Your task to perform on an android device: manage bookmarks in the chrome app Image 0: 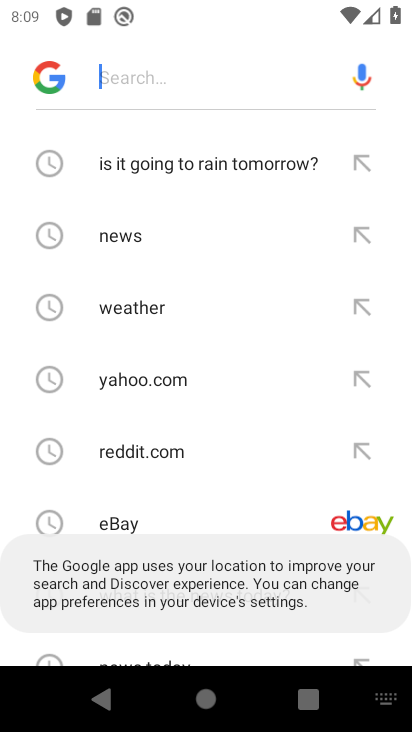
Step 0: press home button
Your task to perform on an android device: manage bookmarks in the chrome app Image 1: 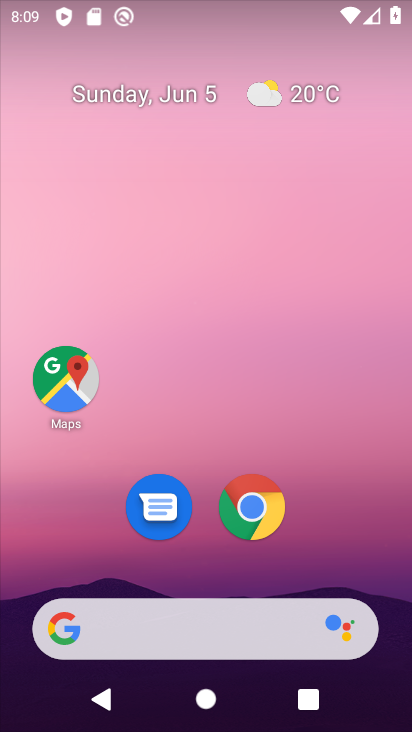
Step 1: click (254, 517)
Your task to perform on an android device: manage bookmarks in the chrome app Image 2: 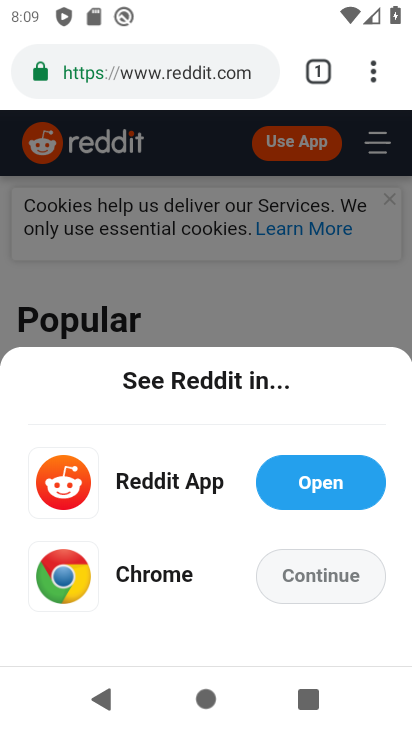
Step 2: click (375, 78)
Your task to perform on an android device: manage bookmarks in the chrome app Image 3: 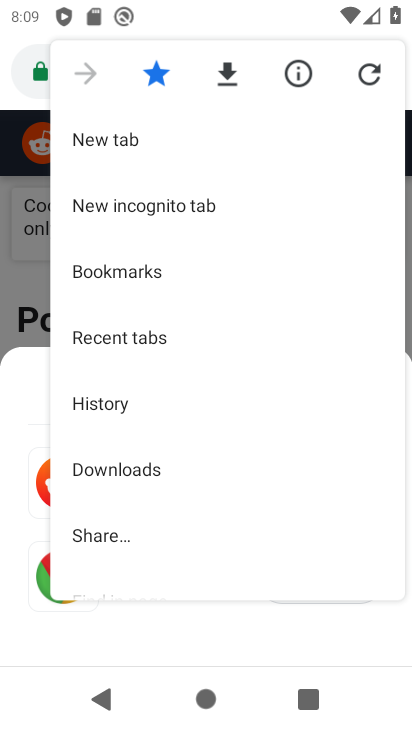
Step 3: click (147, 268)
Your task to perform on an android device: manage bookmarks in the chrome app Image 4: 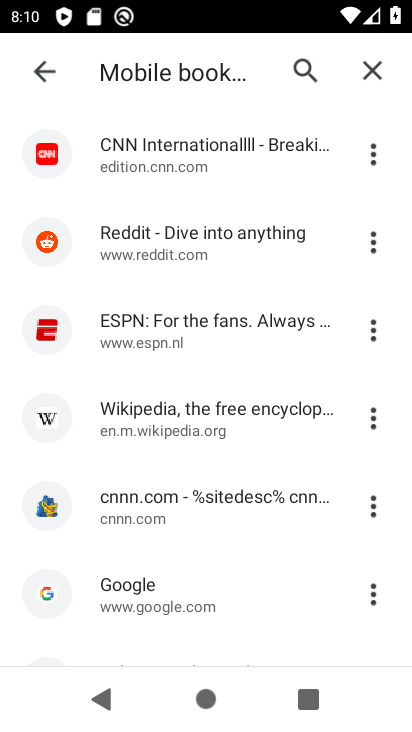
Step 4: click (374, 246)
Your task to perform on an android device: manage bookmarks in the chrome app Image 5: 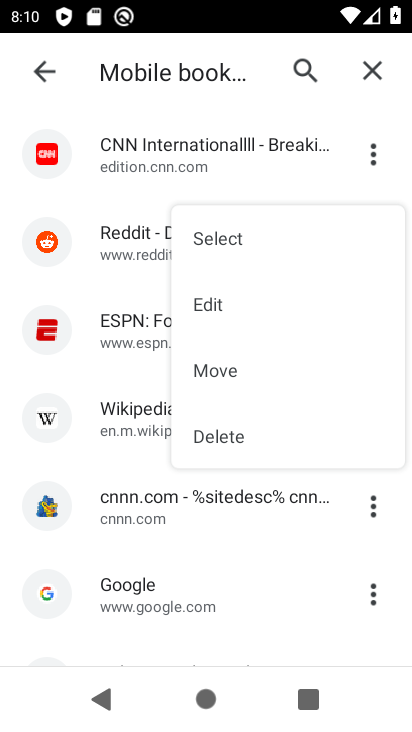
Step 5: click (214, 298)
Your task to perform on an android device: manage bookmarks in the chrome app Image 6: 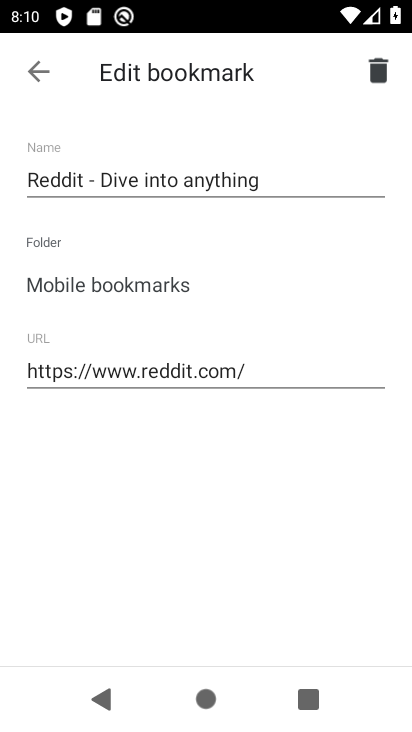
Step 6: click (199, 176)
Your task to perform on an android device: manage bookmarks in the chrome app Image 7: 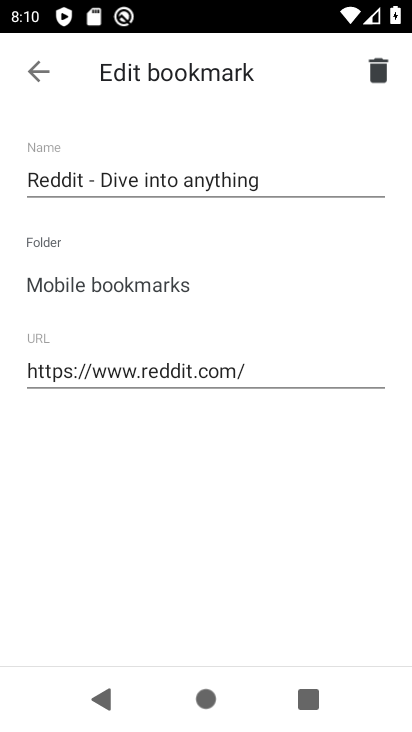
Step 7: click (199, 176)
Your task to perform on an android device: manage bookmarks in the chrome app Image 8: 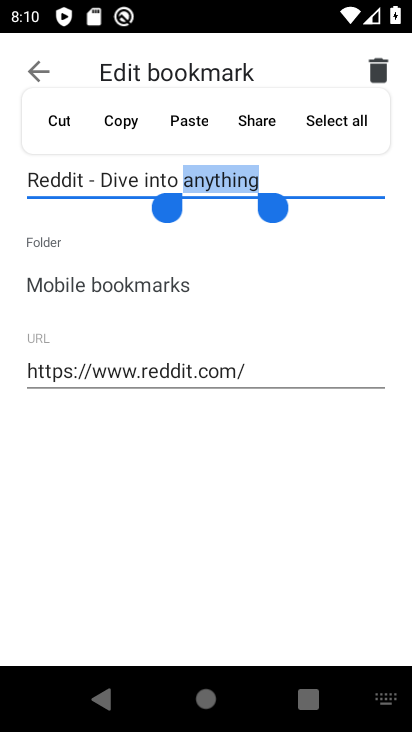
Step 8: click (53, 119)
Your task to perform on an android device: manage bookmarks in the chrome app Image 9: 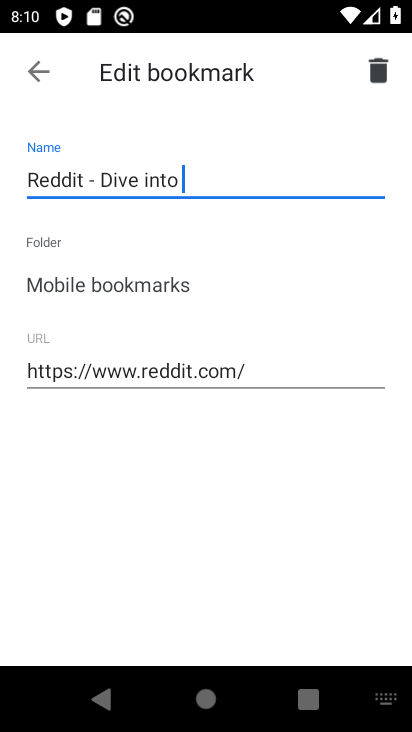
Step 9: click (41, 68)
Your task to perform on an android device: manage bookmarks in the chrome app Image 10: 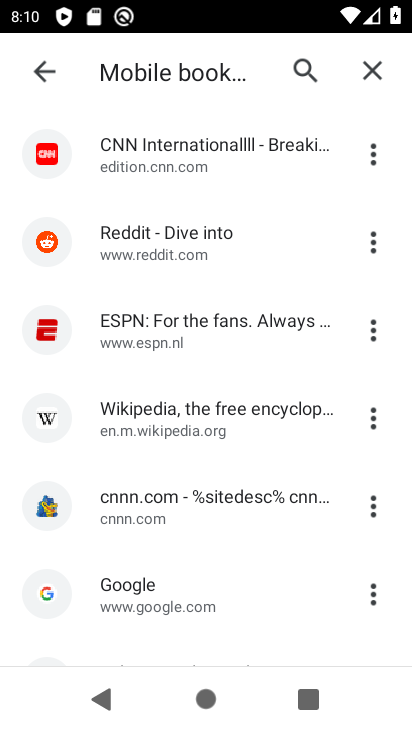
Step 10: task complete